Your task to perform on an android device: check storage Image 0: 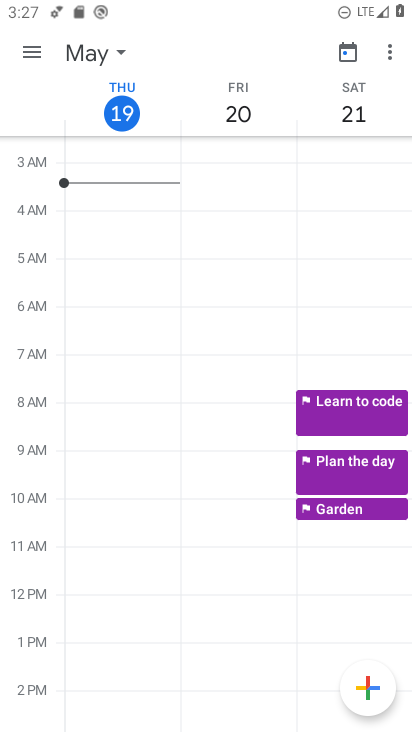
Step 0: press home button
Your task to perform on an android device: check storage Image 1: 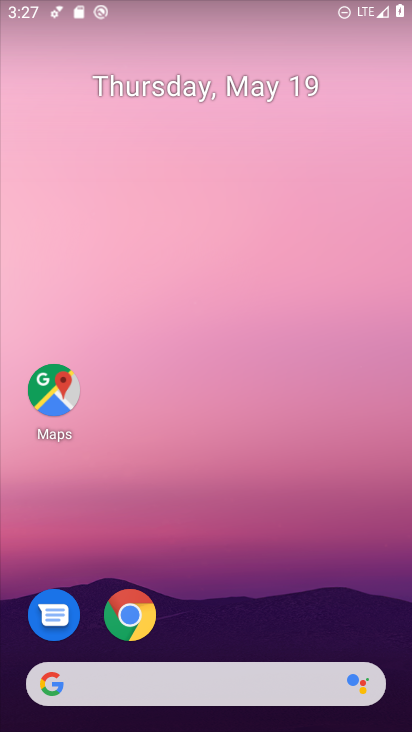
Step 1: drag from (247, 605) to (175, 185)
Your task to perform on an android device: check storage Image 2: 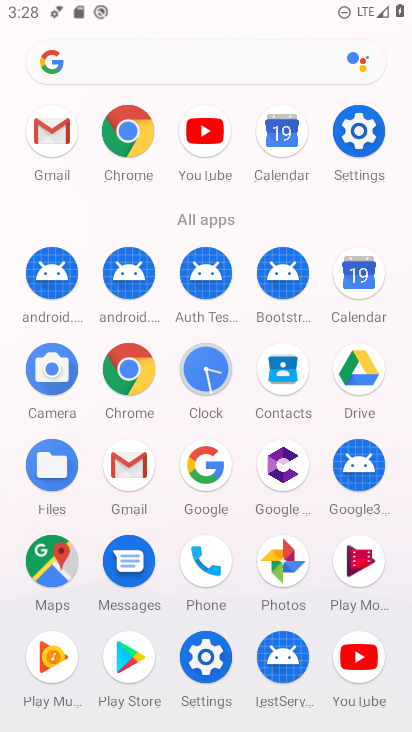
Step 2: click (360, 135)
Your task to perform on an android device: check storage Image 3: 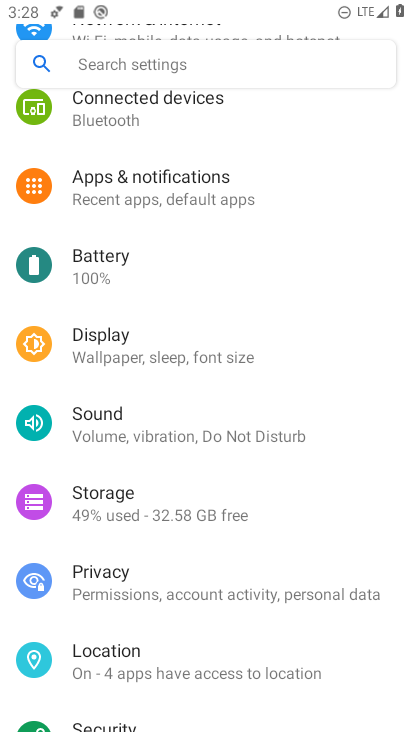
Step 3: click (240, 503)
Your task to perform on an android device: check storage Image 4: 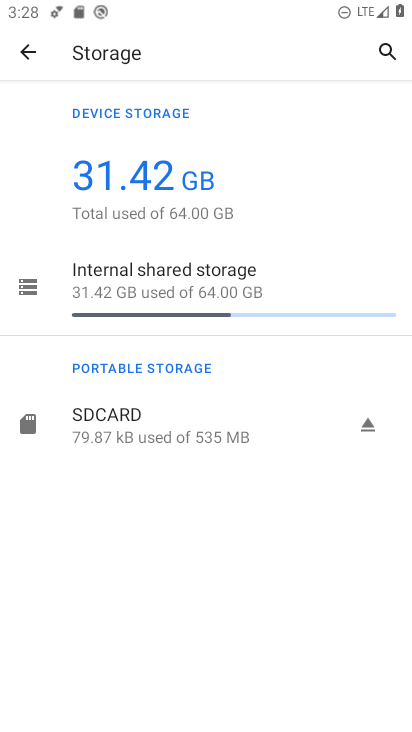
Step 4: task complete